Your task to perform on an android device: Go to display settings Image 0: 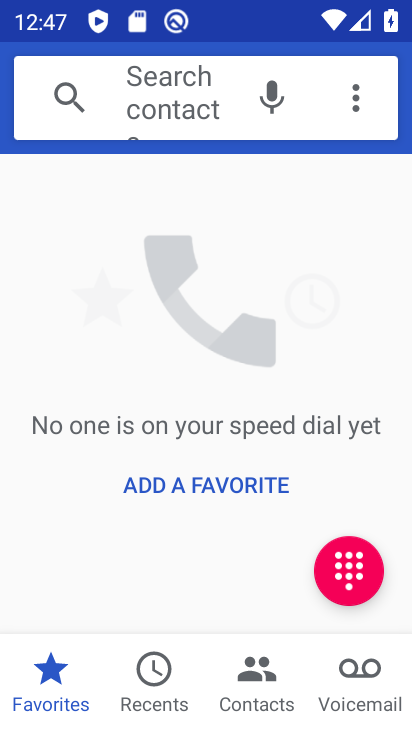
Step 0: press home button
Your task to perform on an android device: Go to display settings Image 1: 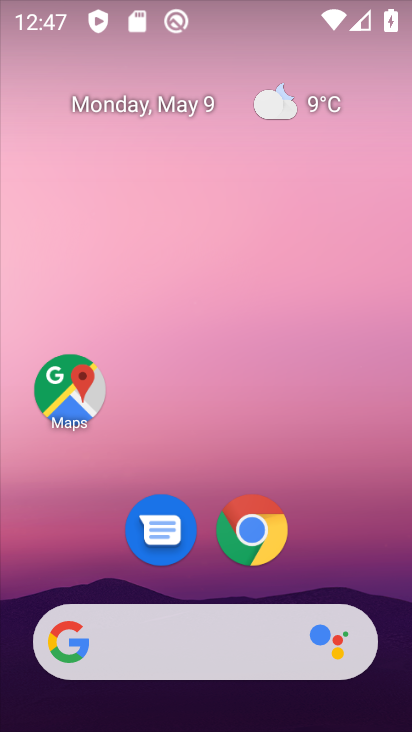
Step 1: drag from (330, 468) to (345, 183)
Your task to perform on an android device: Go to display settings Image 2: 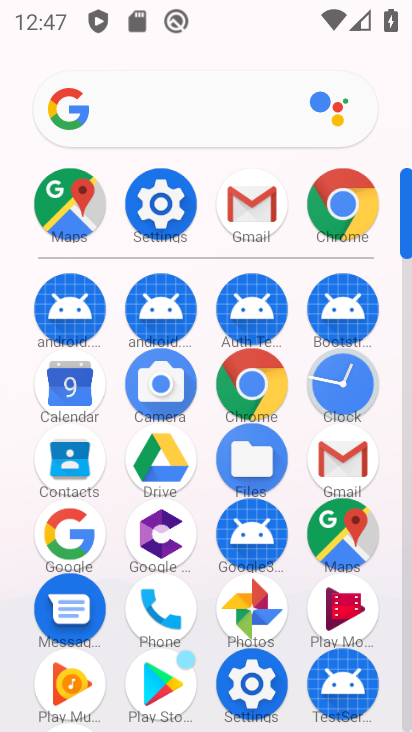
Step 2: click (149, 208)
Your task to perform on an android device: Go to display settings Image 3: 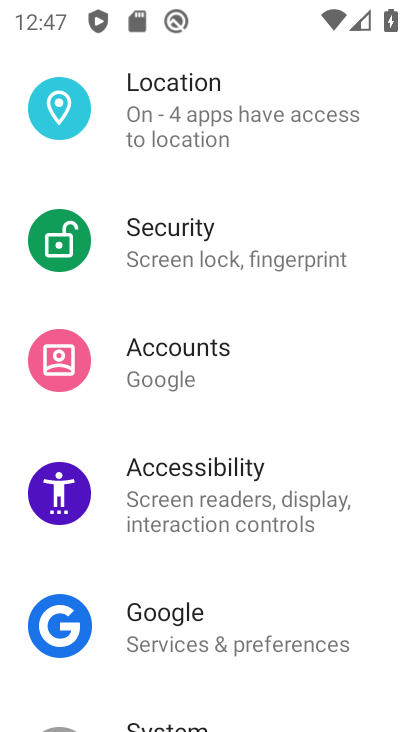
Step 3: drag from (247, 611) to (299, 175)
Your task to perform on an android device: Go to display settings Image 4: 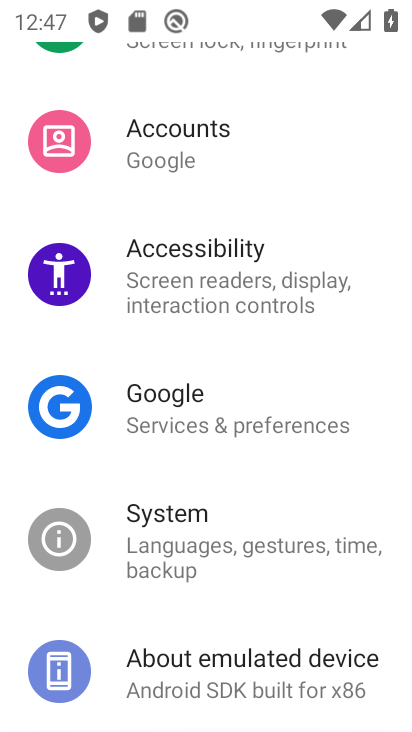
Step 4: drag from (268, 139) to (222, 615)
Your task to perform on an android device: Go to display settings Image 5: 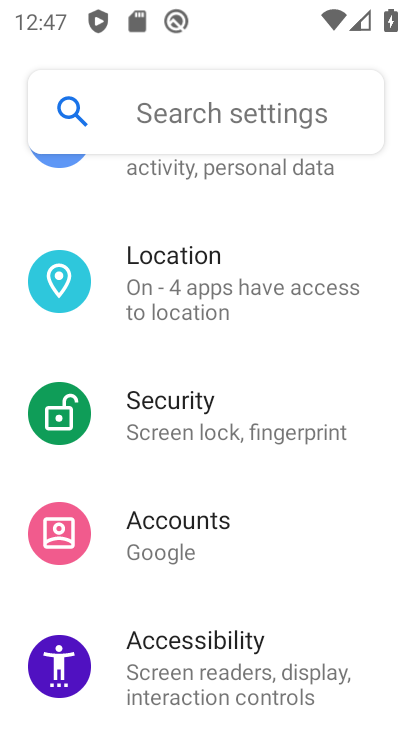
Step 5: drag from (265, 217) to (233, 637)
Your task to perform on an android device: Go to display settings Image 6: 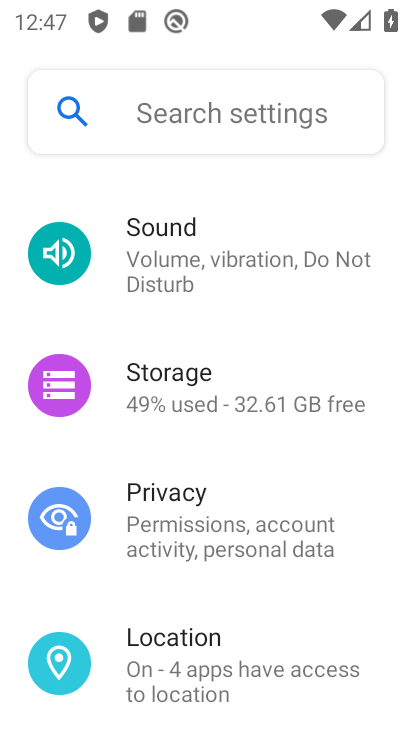
Step 6: drag from (251, 204) to (258, 626)
Your task to perform on an android device: Go to display settings Image 7: 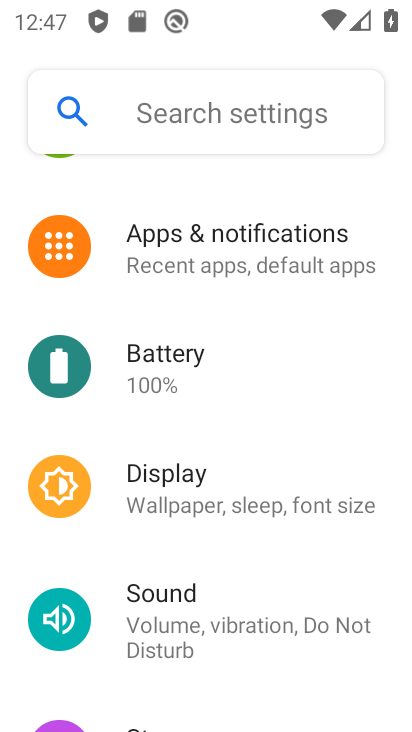
Step 7: click (195, 484)
Your task to perform on an android device: Go to display settings Image 8: 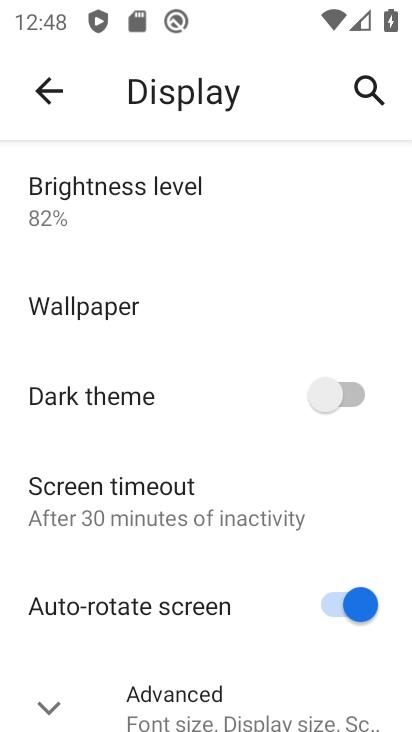
Step 8: task complete